Your task to perform on an android device: stop showing notifications on the lock screen Image 0: 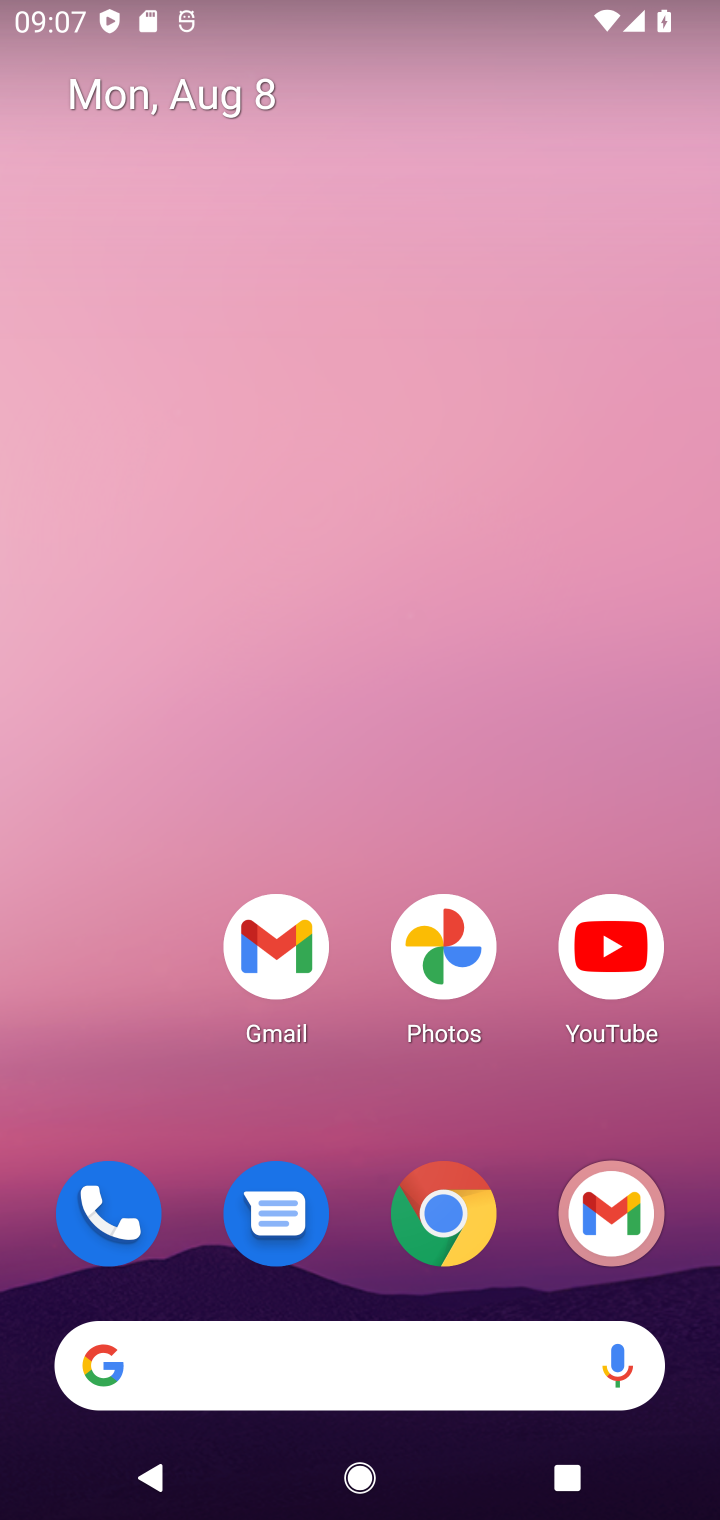
Step 0: drag from (417, 604) to (437, 186)
Your task to perform on an android device: stop showing notifications on the lock screen Image 1: 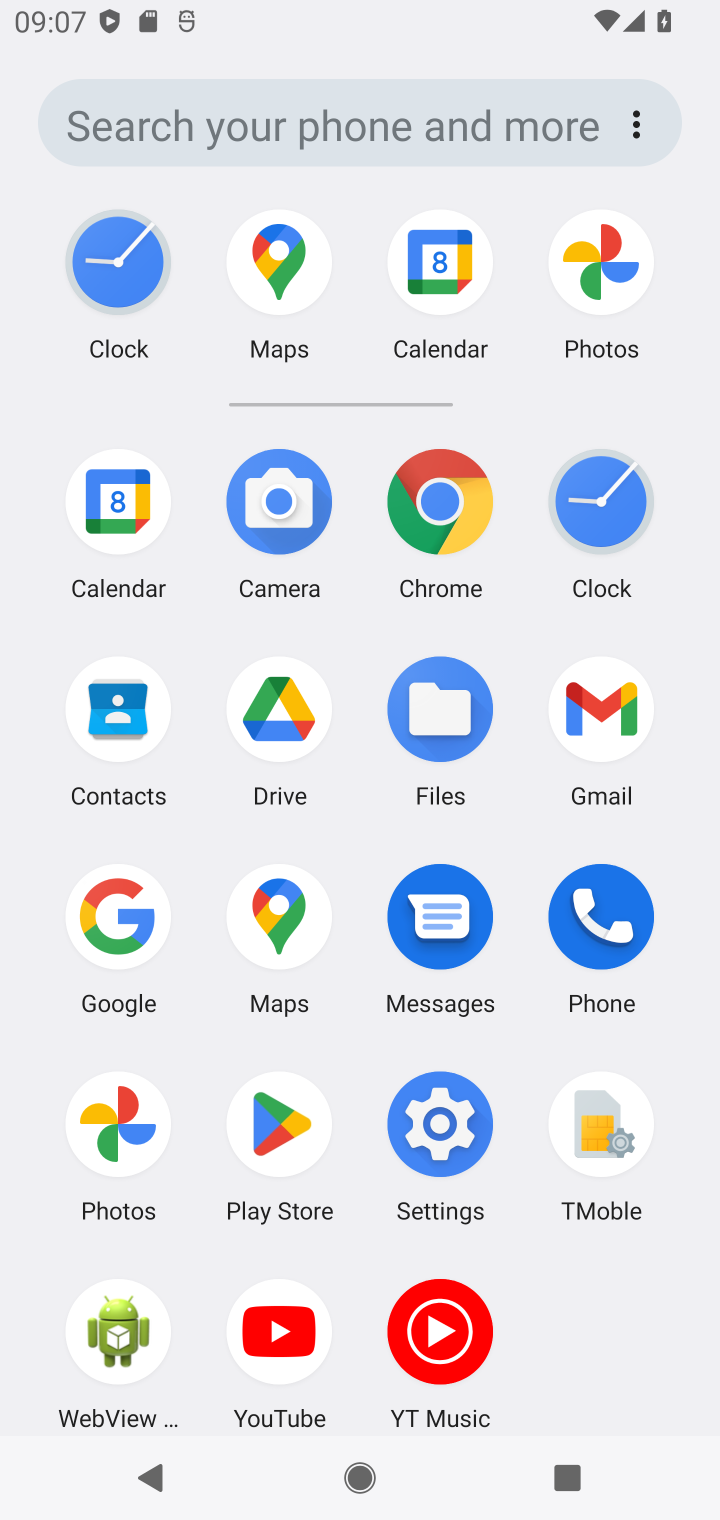
Step 1: click (452, 1138)
Your task to perform on an android device: stop showing notifications on the lock screen Image 2: 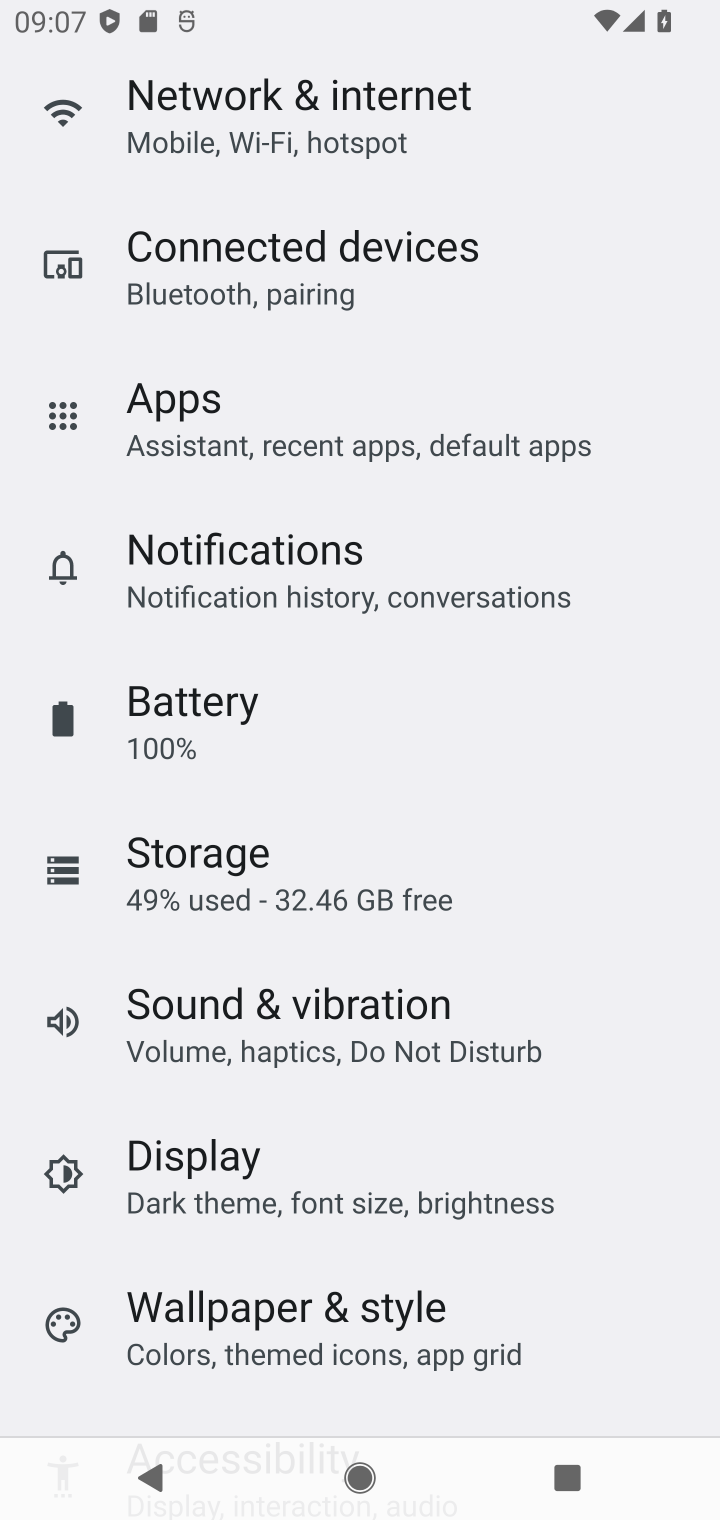
Step 2: click (325, 604)
Your task to perform on an android device: stop showing notifications on the lock screen Image 3: 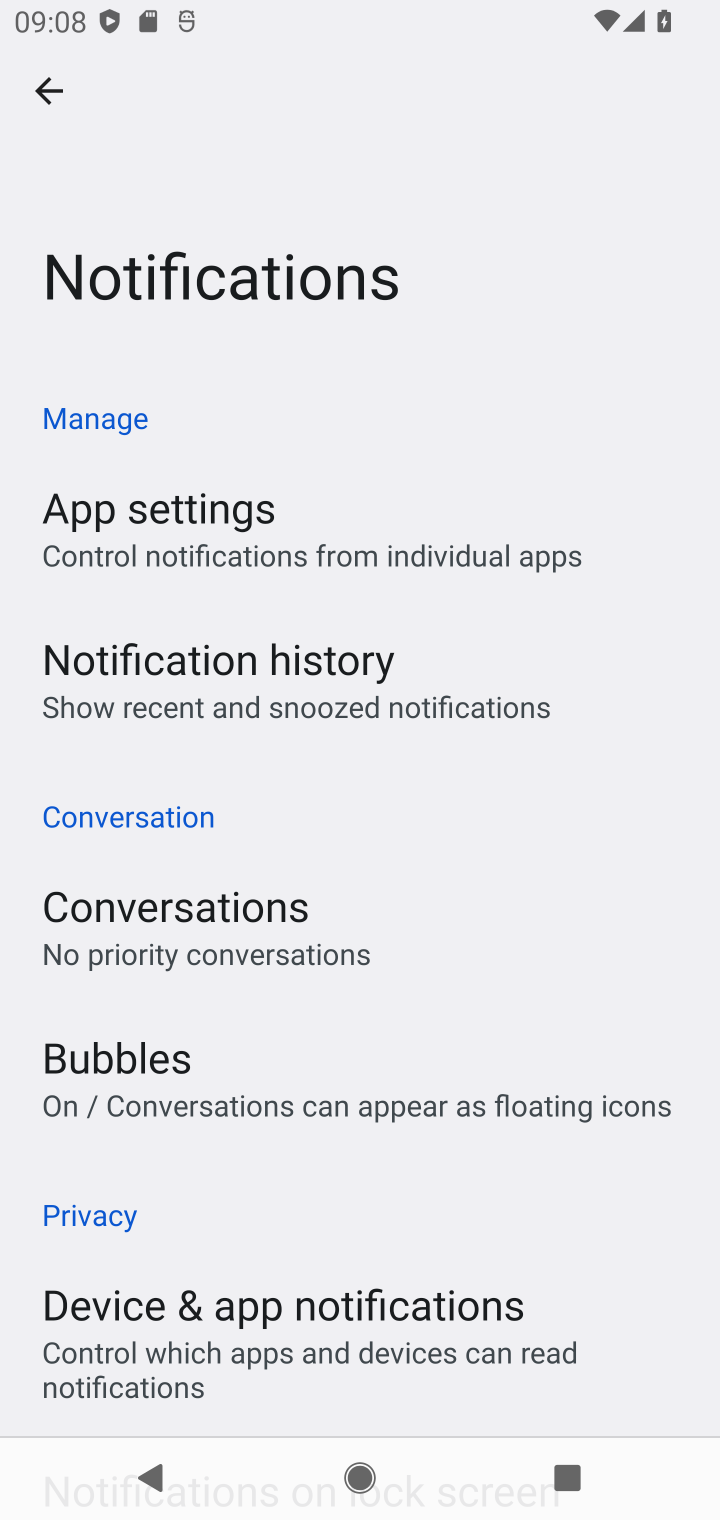
Step 3: drag from (299, 933) to (320, 321)
Your task to perform on an android device: stop showing notifications on the lock screen Image 4: 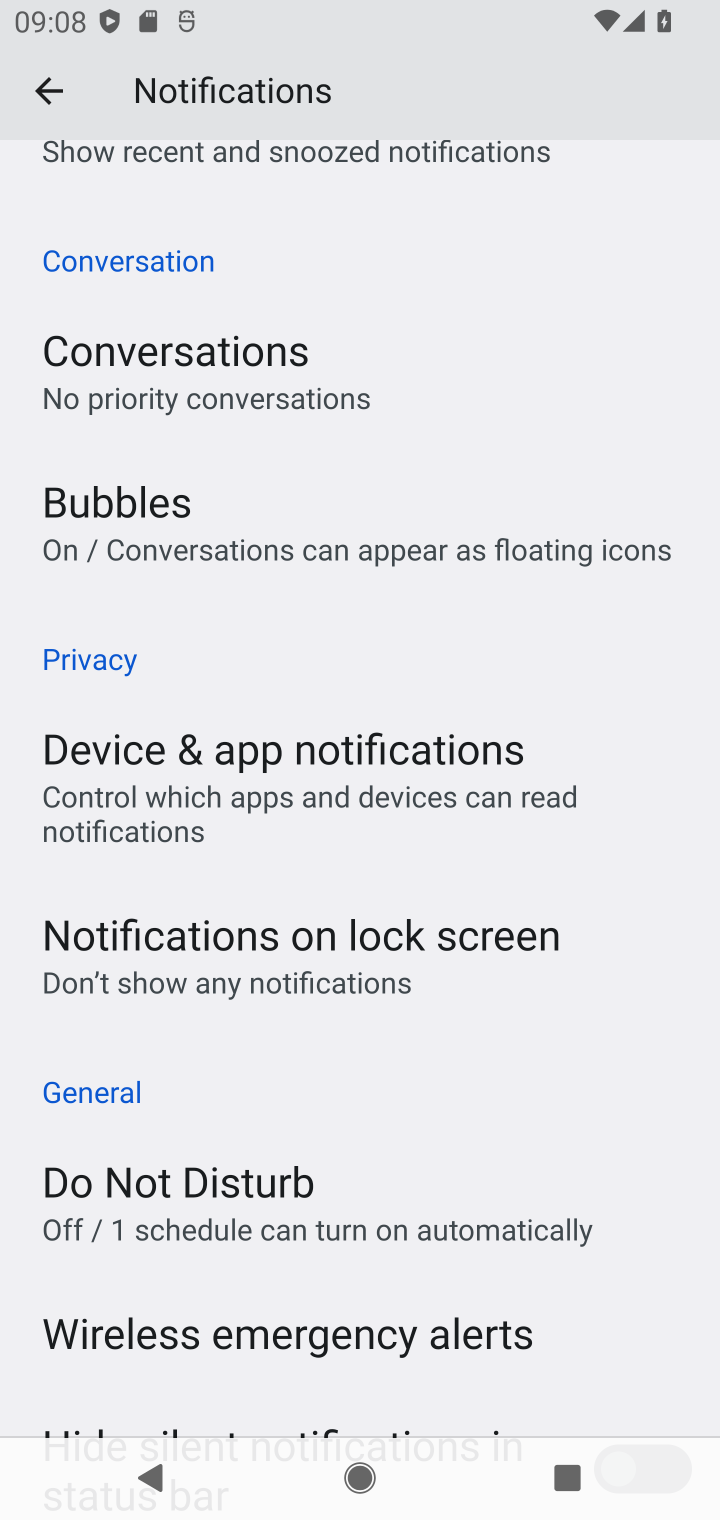
Step 4: click (339, 995)
Your task to perform on an android device: stop showing notifications on the lock screen Image 5: 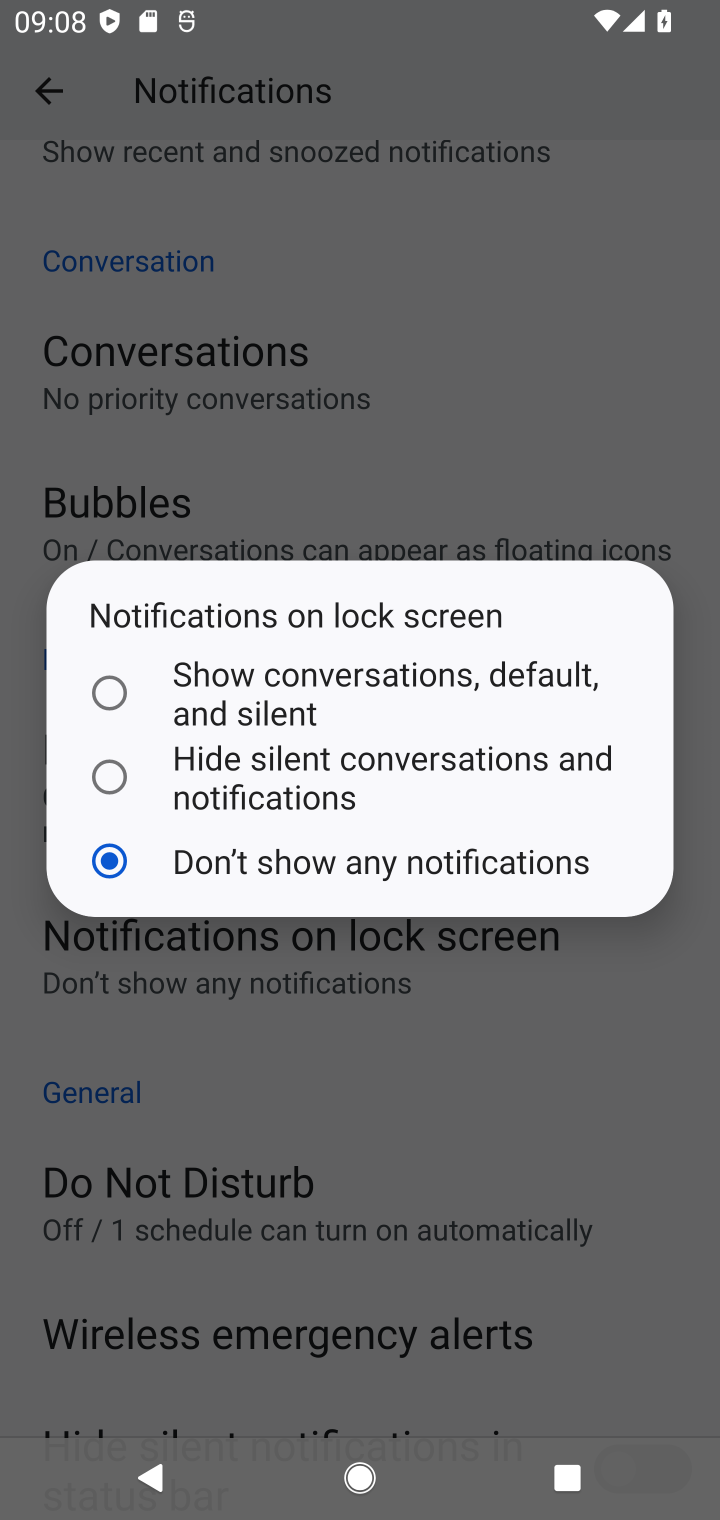
Step 5: task complete